Your task to perform on an android device: Search for razer blade on bestbuy.com, select the first entry, add it to the cart, then select checkout. Image 0: 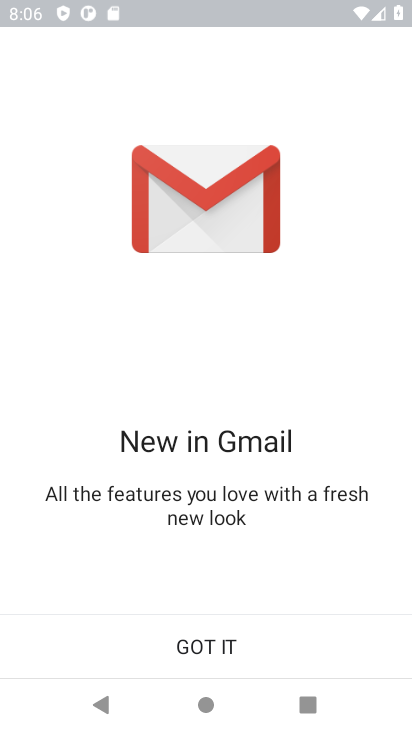
Step 0: press home button
Your task to perform on an android device: Search for razer blade on bestbuy.com, select the first entry, add it to the cart, then select checkout. Image 1: 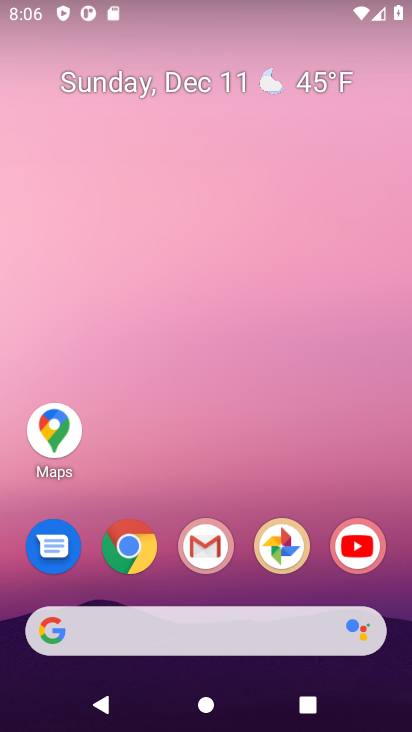
Step 1: click (138, 552)
Your task to perform on an android device: Search for razer blade on bestbuy.com, select the first entry, add it to the cart, then select checkout. Image 2: 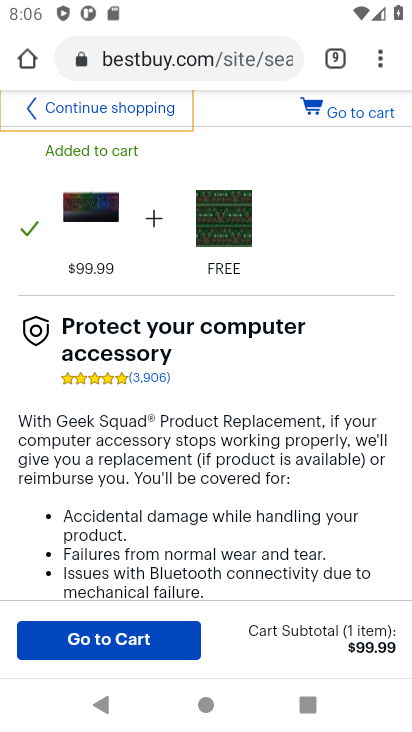
Step 2: click (142, 109)
Your task to perform on an android device: Search for razer blade on bestbuy.com, select the first entry, add it to the cart, then select checkout. Image 3: 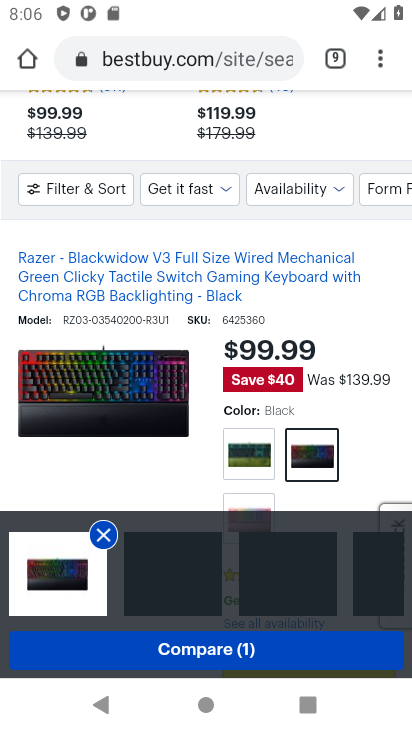
Step 3: drag from (166, 142) to (166, 421)
Your task to perform on an android device: Search for razer blade on bestbuy.com, select the first entry, add it to the cart, then select checkout. Image 4: 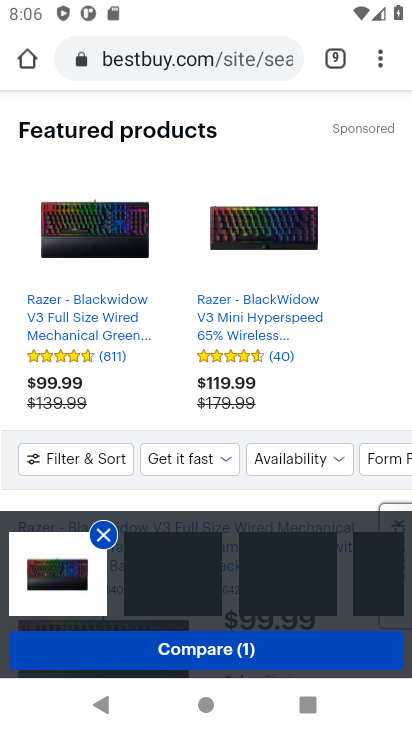
Step 4: drag from (195, 143) to (184, 414)
Your task to perform on an android device: Search for razer blade on bestbuy.com, select the first entry, add it to the cart, then select checkout. Image 5: 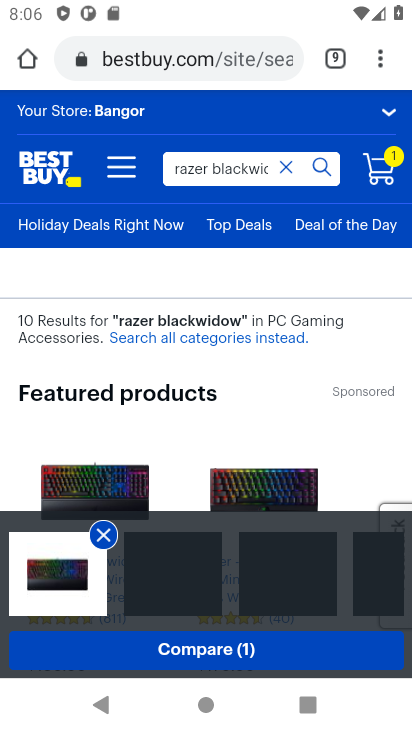
Step 5: click (284, 166)
Your task to perform on an android device: Search for razer blade on bestbuy.com, select the first entry, add it to the cart, then select checkout. Image 6: 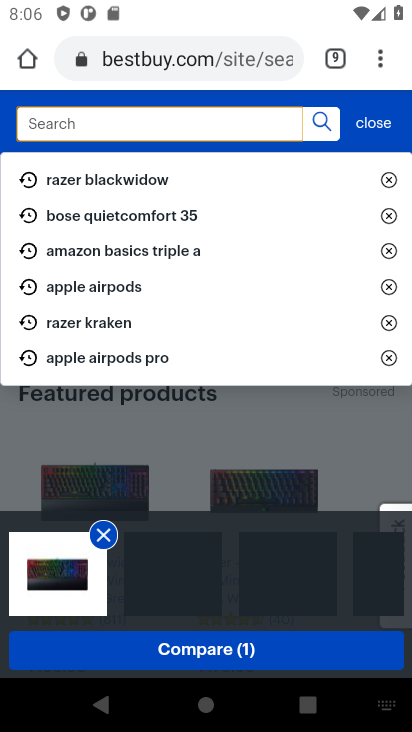
Step 6: type "razer blade"
Your task to perform on an android device: Search for razer blade on bestbuy.com, select the first entry, add it to the cart, then select checkout. Image 7: 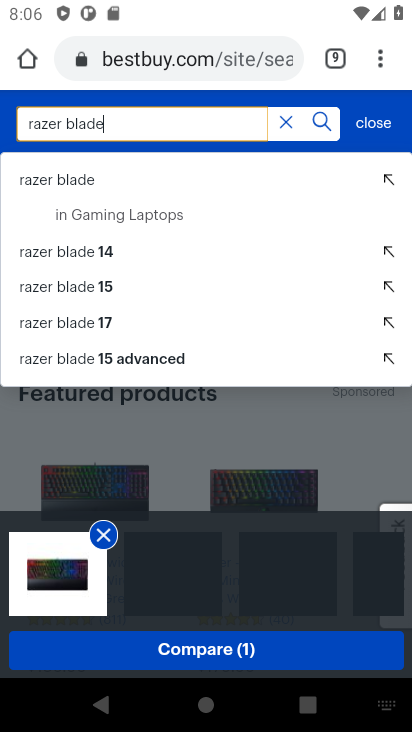
Step 7: click (36, 185)
Your task to perform on an android device: Search for razer blade on bestbuy.com, select the first entry, add it to the cart, then select checkout. Image 8: 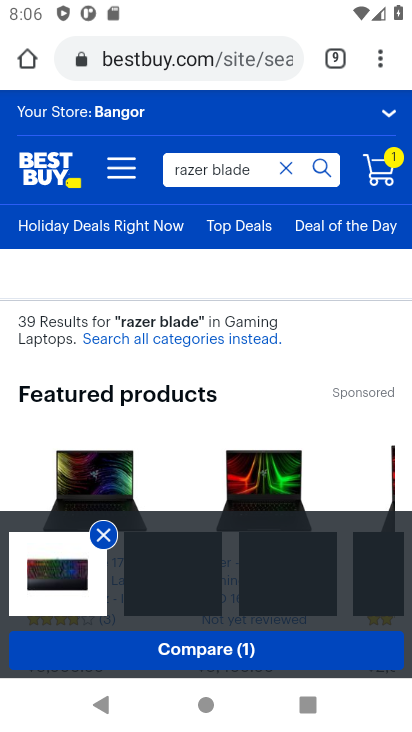
Step 8: drag from (185, 475) to (181, 176)
Your task to perform on an android device: Search for razer blade on bestbuy.com, select the first entry, add it to the cart, then select checkout. Image 9: 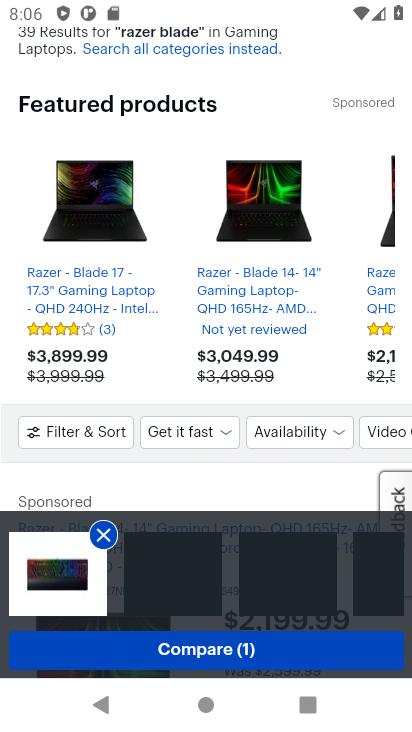
Step 9: click (100, 532)
Your task to perform on an android device: Search for razer blade on bestbuy.com, select the first entry, add it to the cart, then select checkout. Image 10: 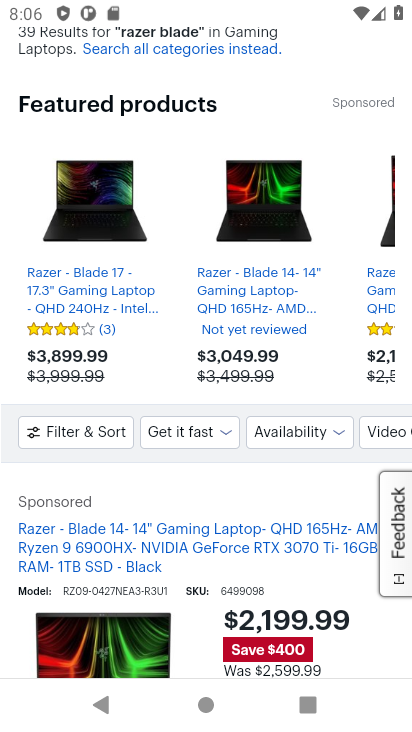
Step 10: drag from (170, 527) to (174, 245)
Your task to perform on an android device: Search for razer blade on bestbuy.com, select the first entry, add it to the cart, then select checkout. Image 11: 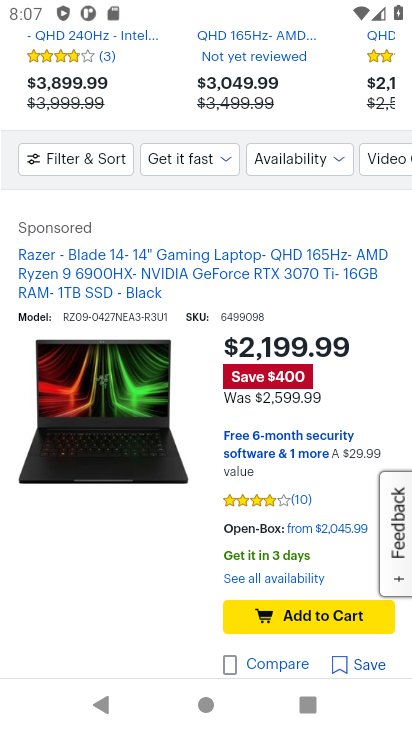
Step 11: click (305, 619)
Your task to perform on an android device: Search for razer blade on bestbuy.com, select the first entry, add it to the cart, then select checkout. Image 12: 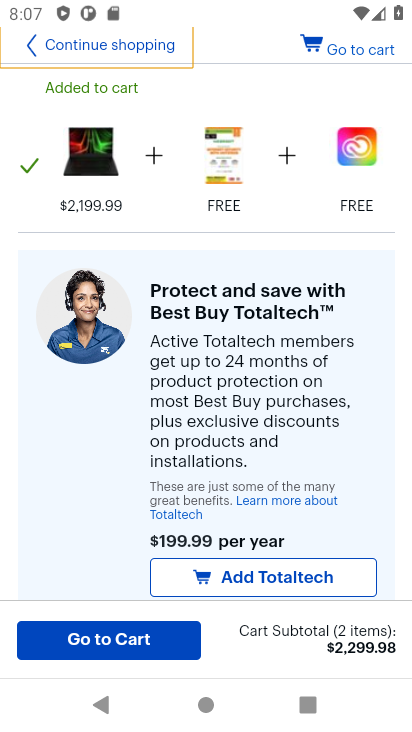
Step 12: click (367, 52)
Your task to perform on an android device: Search for razer blade on bestbuy.com, select the first entry, add it to the cart, then select checkout. Image 13: 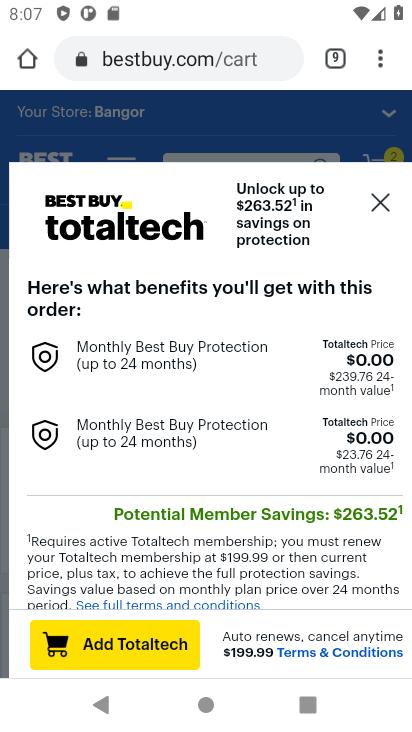
Step 13: click (376, 203)
Your task to perform on an android device: Search for razer blade on bestbuy.com, select the first entry, add it to the cart, then select checkout. Image 14: 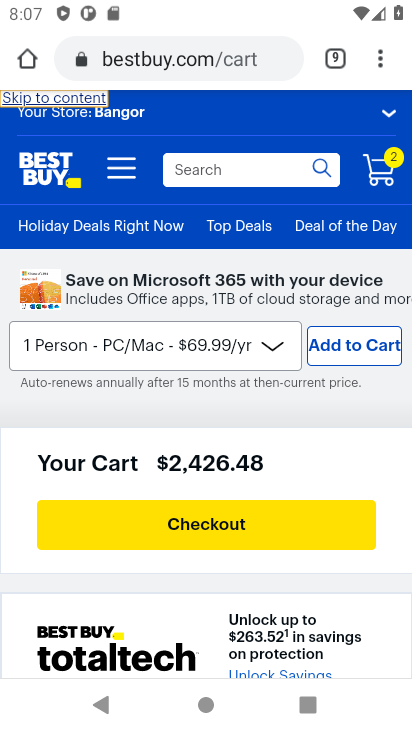
Step 14: click (246, 524)
Your task to perform on an android device: Search for razer blade on bestbuy.com, select the first entry, add it to the cart, then select checkout. Image 15: 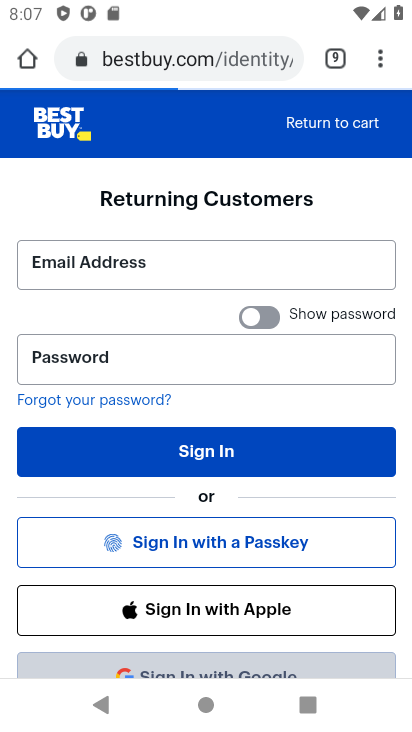
Step 15: task complete